Your task to perform on an android device: Show me productivity apps on the Play Store Image 0: 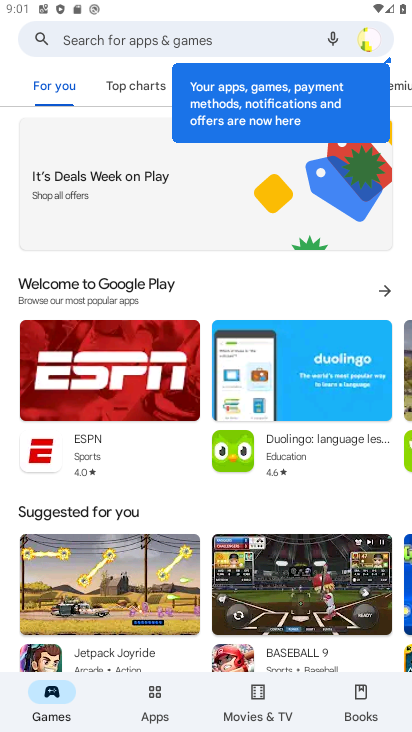
Step 0: click (156, 689)
Your task to perform on an android device: Show me productivity apps on the Play Store Image 1: 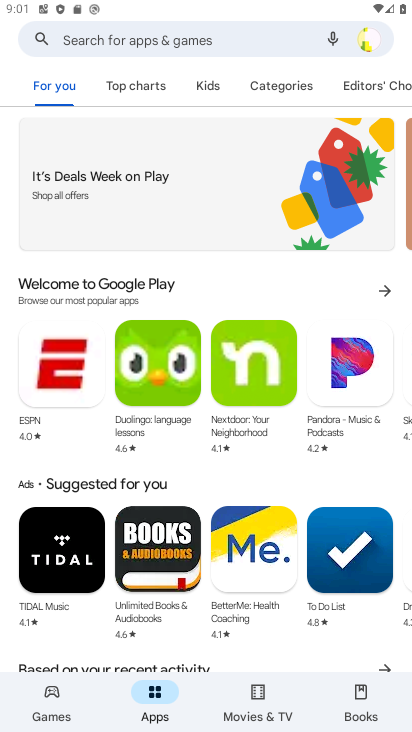
Step 1: click (273, 88)
Your task to perform on an android device: Show me productivity apps on the Play Store Image 2: 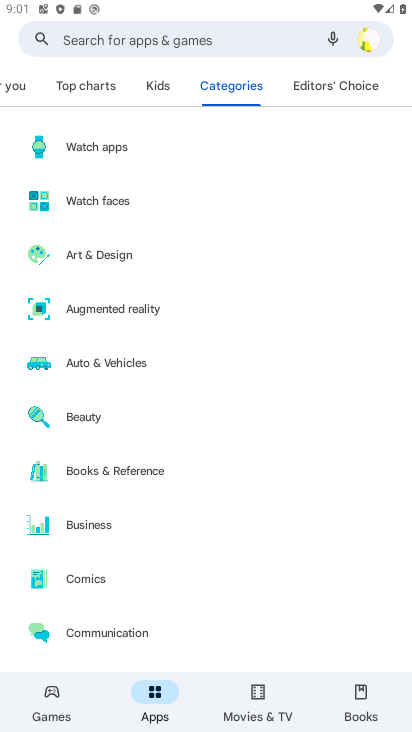
Step 2: drag from (208, 605) to (149, 8)
Your task to perform on an android device: Show me productivity apps on the Play Store Image 3: 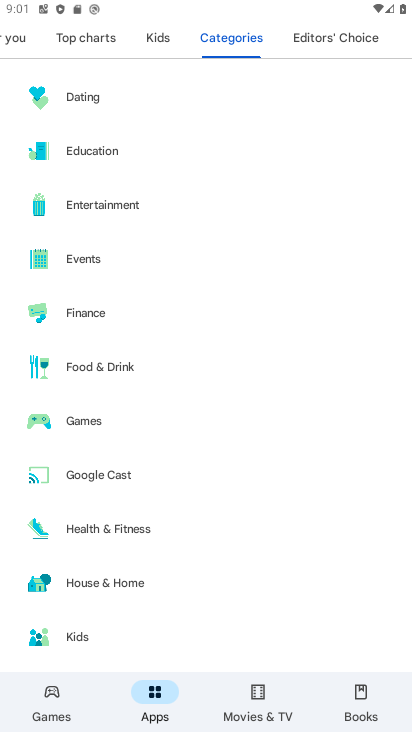
Step 3: drag from (149, 568) to (54, 30)
Your task to perform on an android device: Show me productivity apps on the Play Store Image 4: 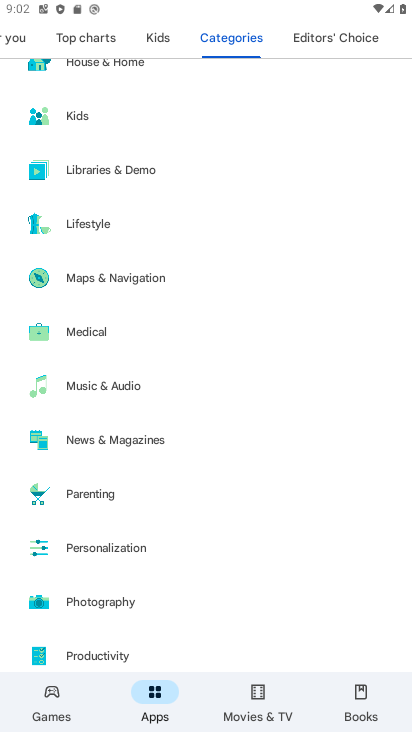
Step 4: click (94, 654)
Your task to perform on an android device: Show me productivity apps on the Play Store Image 5: 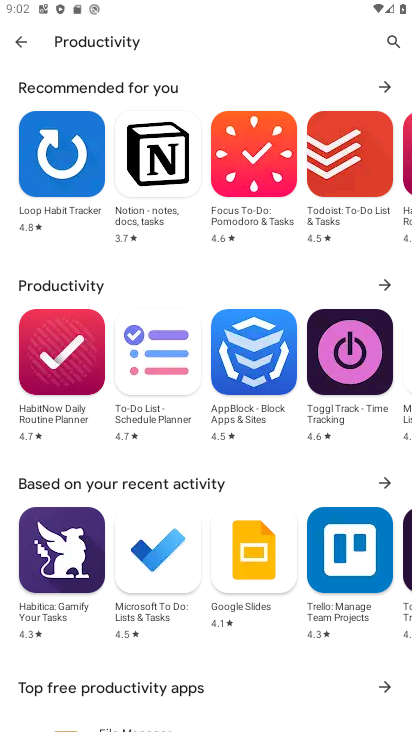
Step 5: task complete